Your task to perform on an android device: toggle show notifications on the lock screen Image 0: 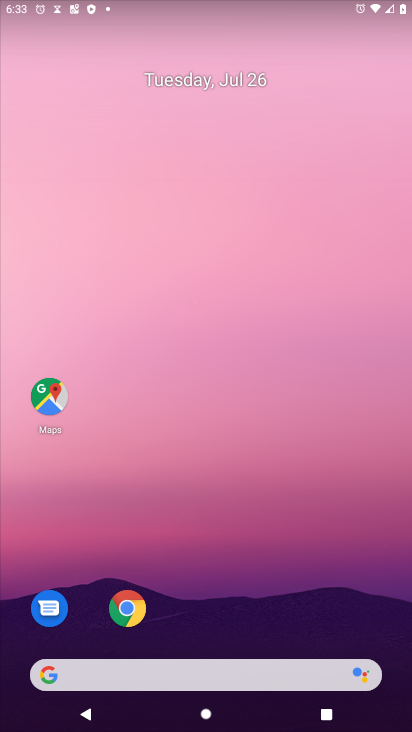
Step 0: drag from (223, 613) to (265, 184)
Your task to perform on an android device: toggle show notifications on the lock screen Image 1: 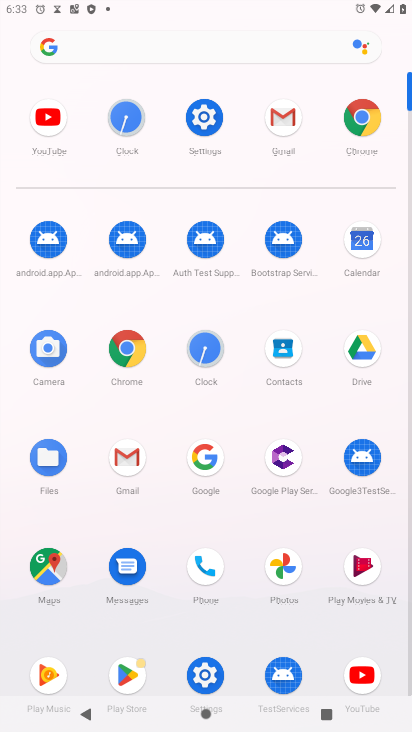
Step 1: click (200, 125)
Your task to perform on an android device: toggle show notifications on the lock screen Image 2: 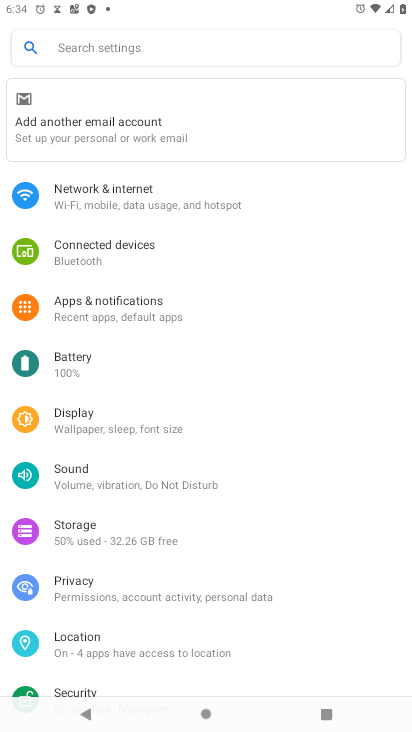
Step 2: click (100, 312)
Your task to perform on an android device: toggle show notifications on the lock screen Image 3: 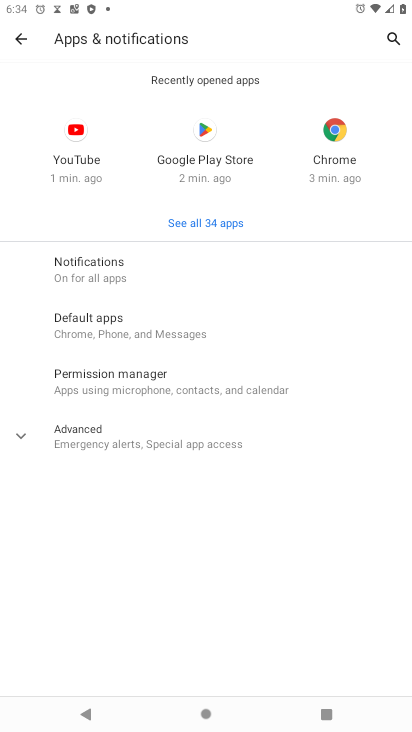
Step 3: click (66, 273)
Your task to perform on an android device: toggle show notifications on the lock screen Image 4: 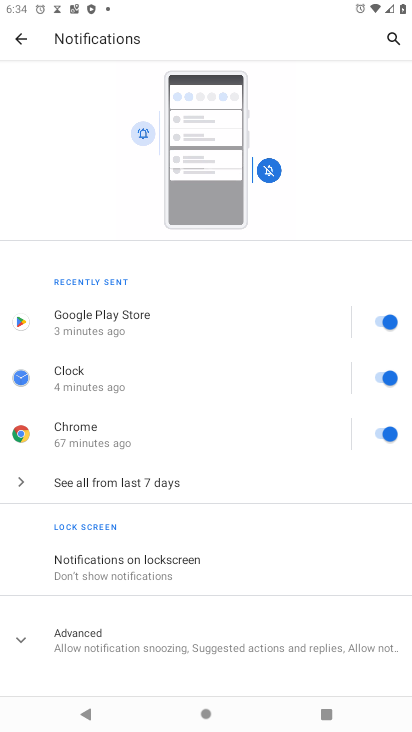
Step 4: click (108, 568)
Your task to perform on an android device: toggle show notifications on the lock screen Image 5: 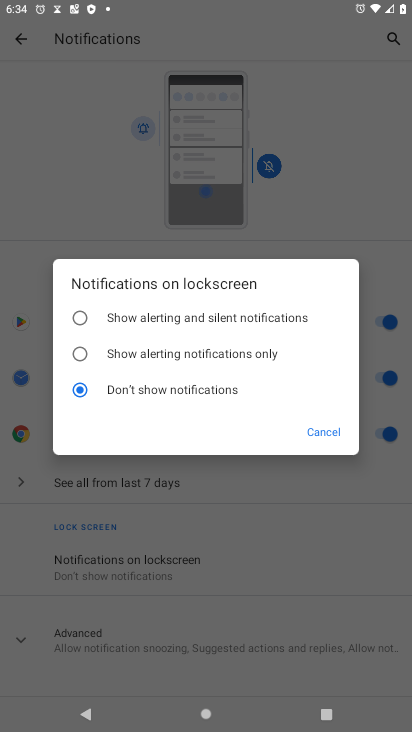
Step 5: click (79, 313)
Your task to perform on an android device: toggle show notifications on the lock screen Image 6: 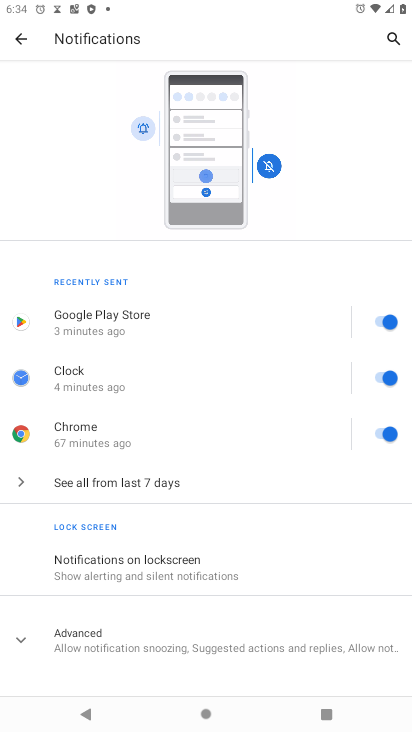
Step 6: task complete